Your task to perform on an android device: Show me recent news Image 0: 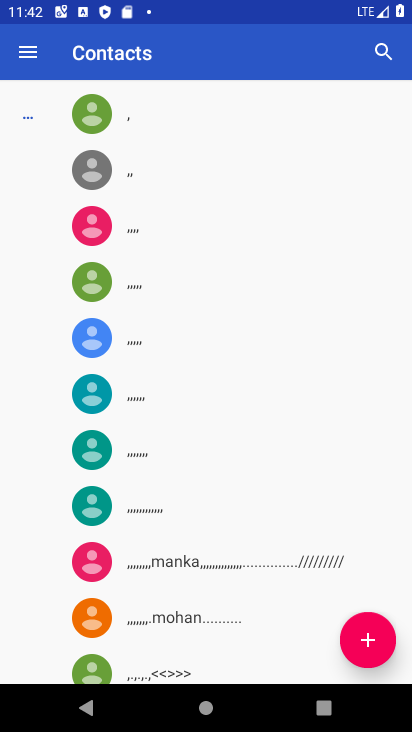
Step 0: press home button
Your task to perform on an android device: Show me recent news Image 1: 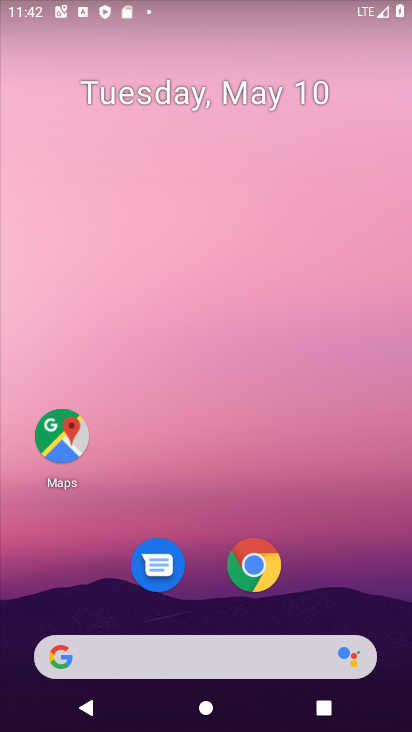
Step 1: click (147, 661)
Your task to perform on an android device: Show me recent news Image 2: 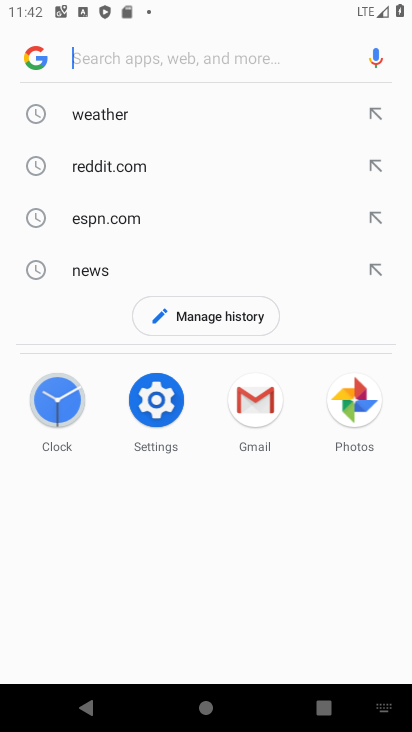
Step 2: click (88, 269)
Your task to perform on an android device: Show me recent news Image 3: 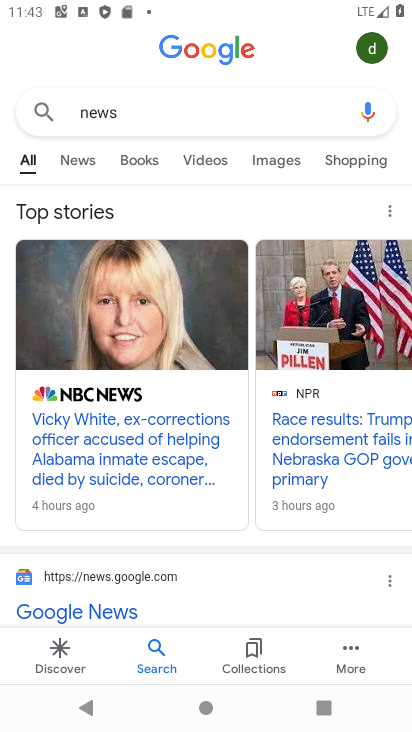
Step 3: task complete